Your task to perform on an android device: Do I have any events this weekend? Image 0: 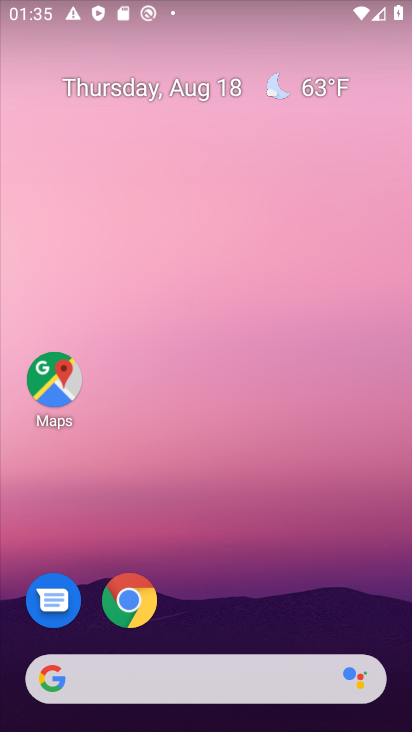
Step 0: click (230, 210)
Your task to perform on an android device: Do I have any events this weekend? Image 1: 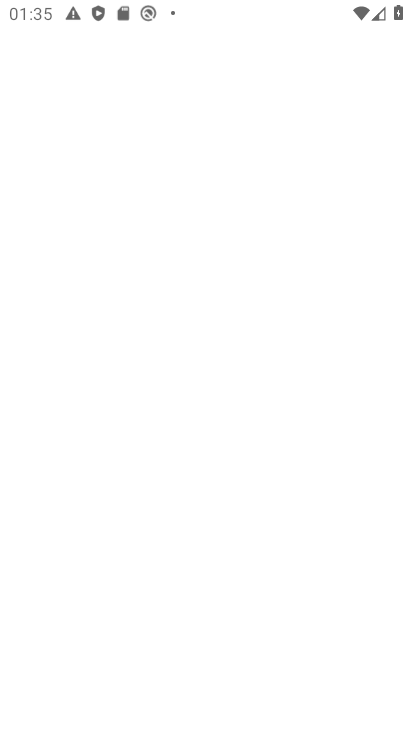
Step 1: press home button
Your task to perform on an android device: Do I have any events this weekend? Image 2: 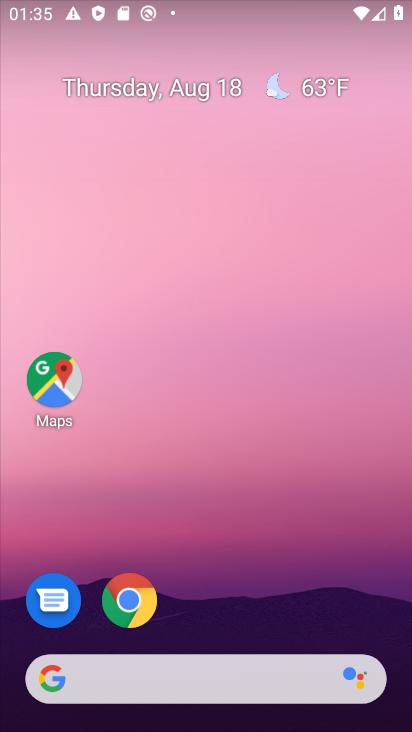
Step 2: drag from (237, 620) to (200, 191)
Your task to perform on an android device: Do I have any events this weekend? Image 3: 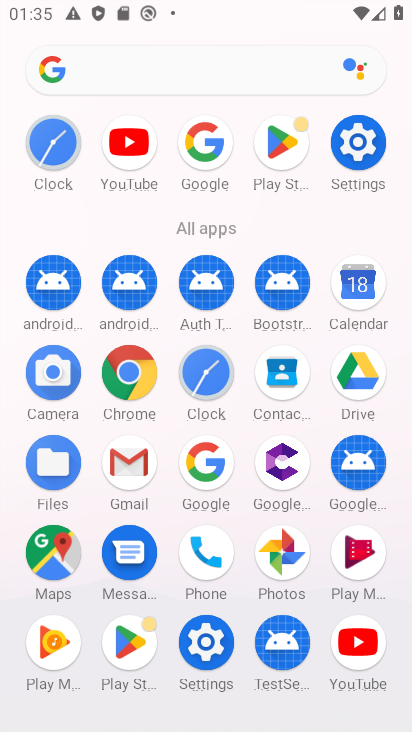
Step 3: click (361, 286)
Your task to perform on an android device: Do I have any events this weekend? Image 4: 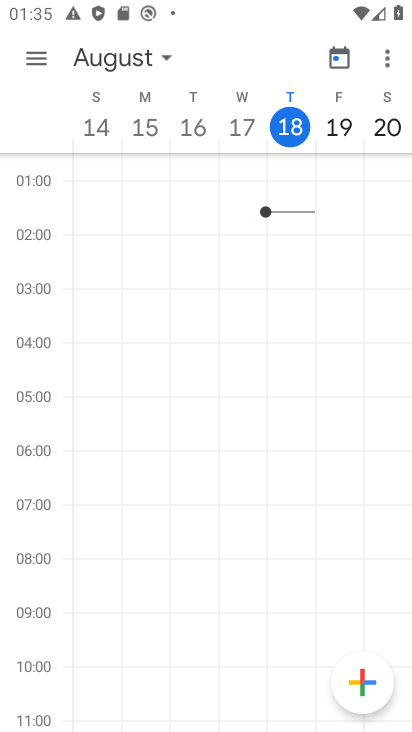
Step 4: task complete